Your task to perform on an android device: Open Google Image 0: 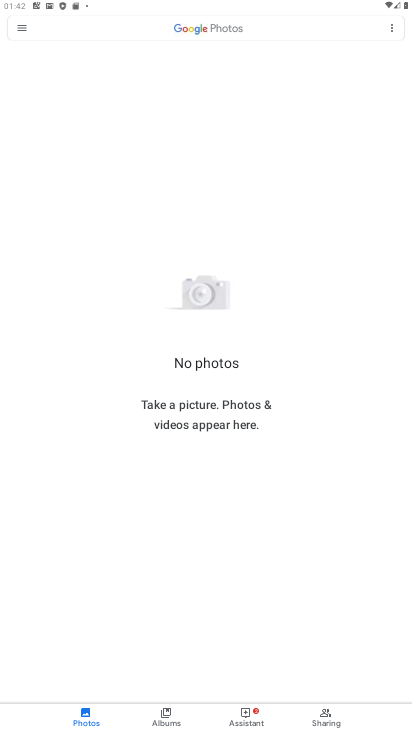
Step 0: press home button
Your task to perform on an android device: Open Google Image 1: 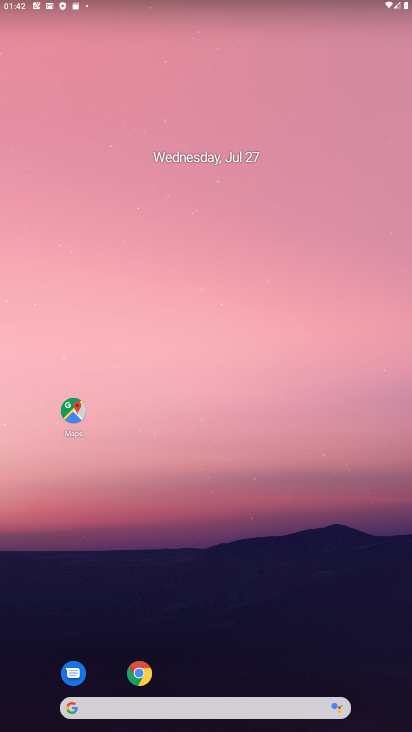
Step 1: drag from (227, 676) to (233, 246)
Your task to perform on an android device: Open Google Image 2: 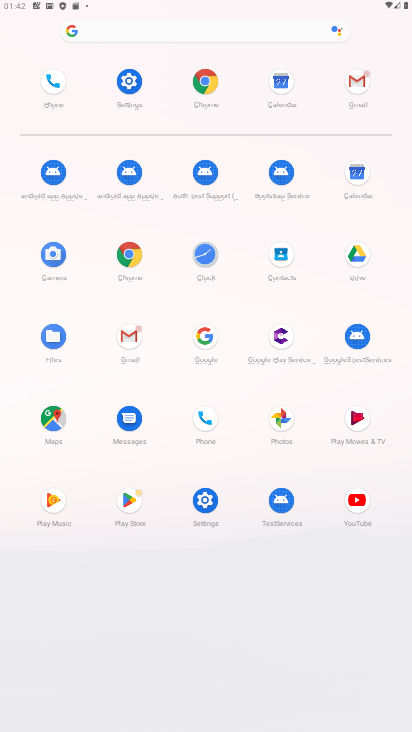
Step 2: click (202, 326)
Your task to perform on an android device: Open Google Image 3: 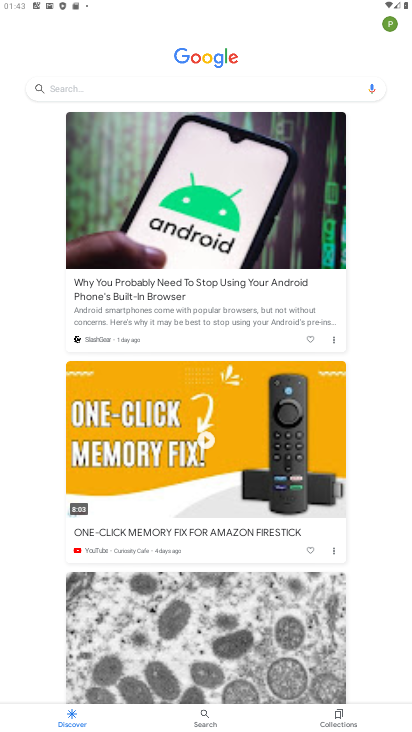
Step 3: task complete